Your task to perform on an android device: Open Google Image 0: 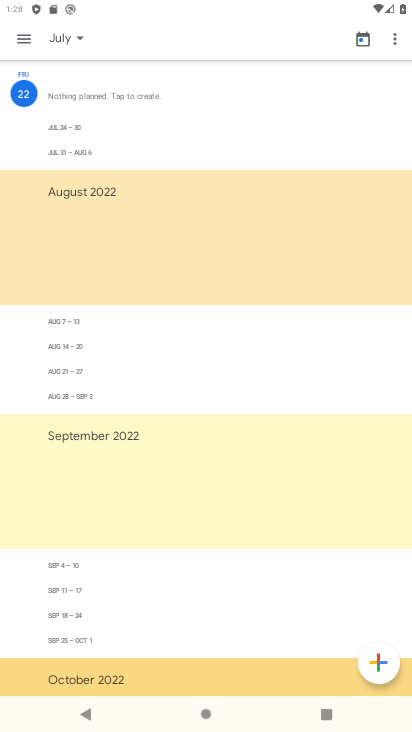
Step 0: press home button
Your task to perform on an android device: Open Google Image 1: 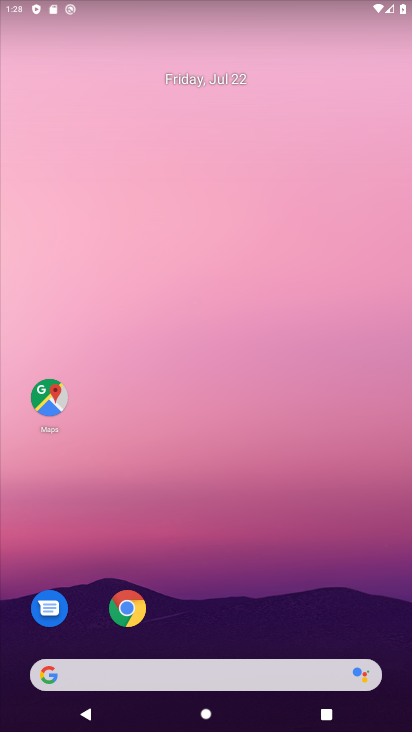
Step 1: drag from (393, 693) to (323, 130)
Your task to perform on an android device: Open Google Image 2: 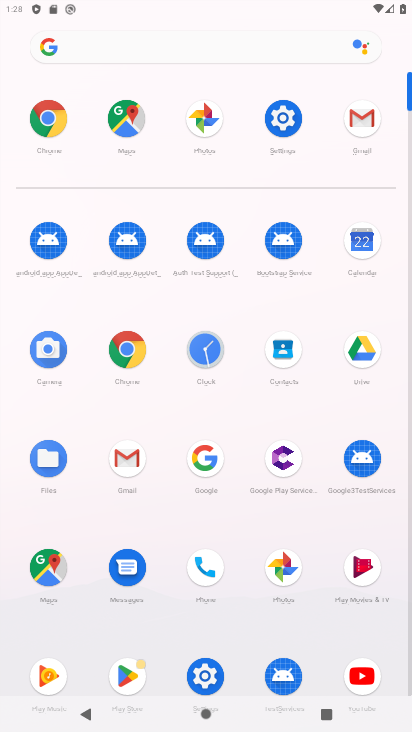
Step 2: click (208, 462)
Your task to perform on an android device: Open Google Image 3: 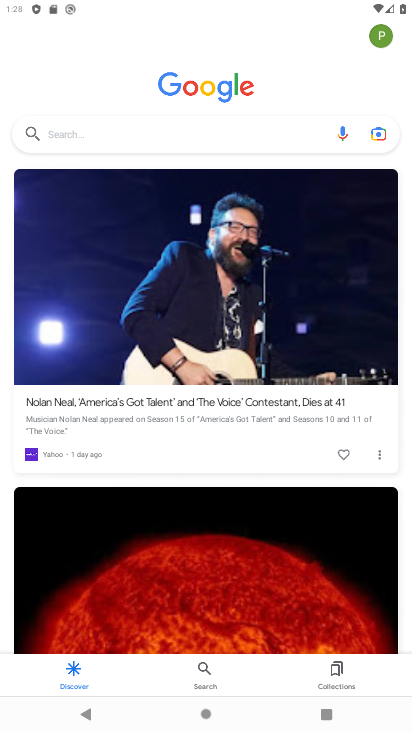
Step 3: task complete